Your task to perform on an android device: change the clock display to digital Image 0: 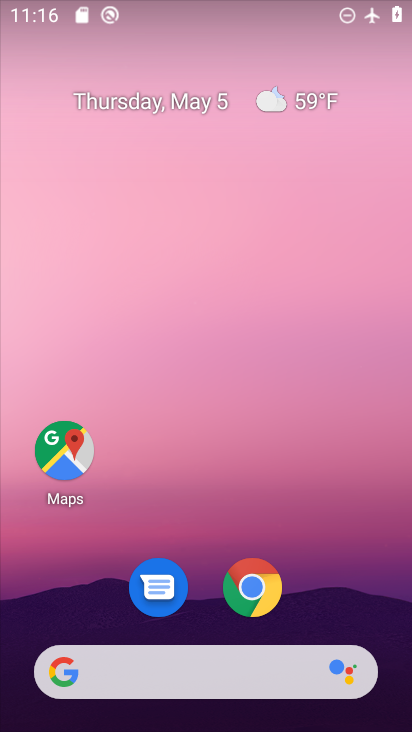
Step 0: drag from (381, 595) to (316, 12)
Your task to perform on an android device: change the clock display to digital Image 1: 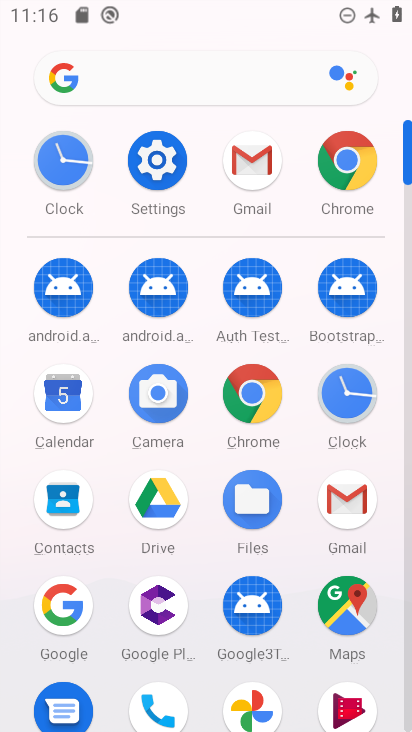
Step 1: drag from (4, 587) to (0, 241)
Your task to perform on an android device: change the clock display to digital Image 2: 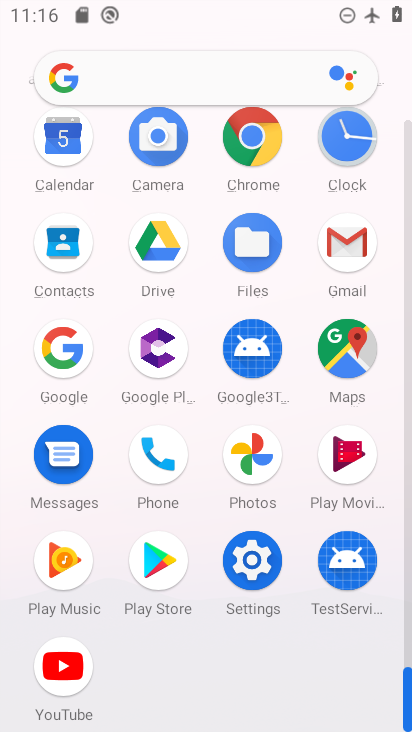
Step 2: click (345, 137)
Your task to perform on an android device: change the clock display to digital Image 3: 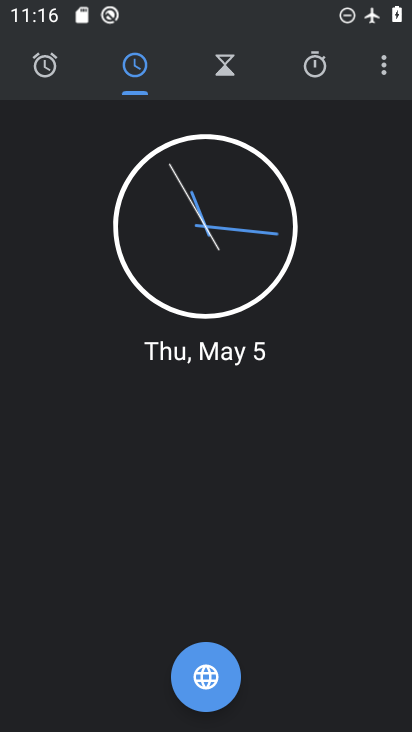
Step 3: drag from (388, 59) to (384, 126)
Your task to perform on an android device: change the clock display to digital Image 4: 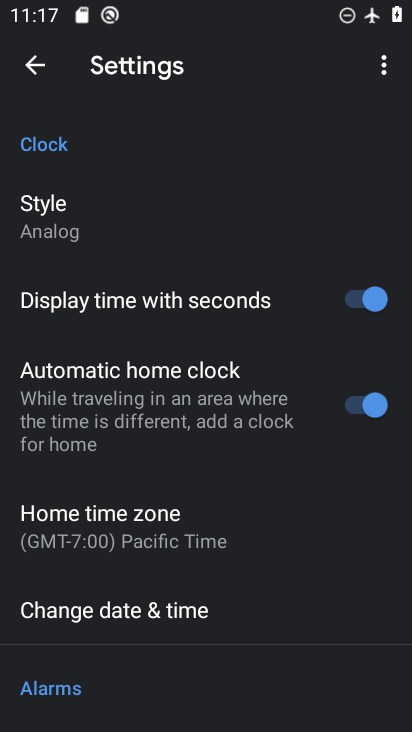
Step 4: click (146, 183)
Your task to perform on an android device: change the clock display to digital Image 5: 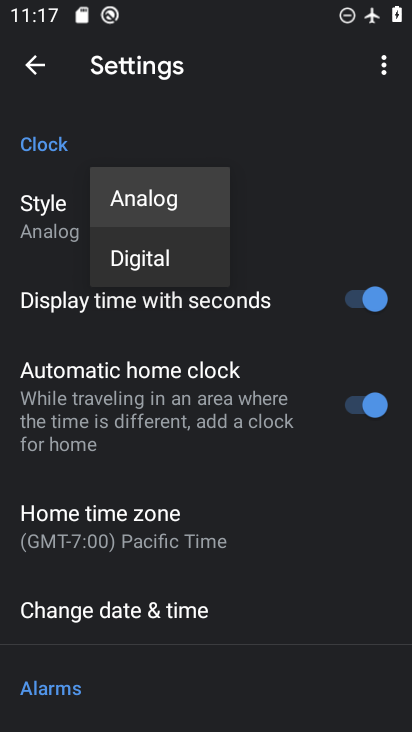
Step 5: click (156, 264)
Your task to perform on an android device: change the clock display to digital Image 6: 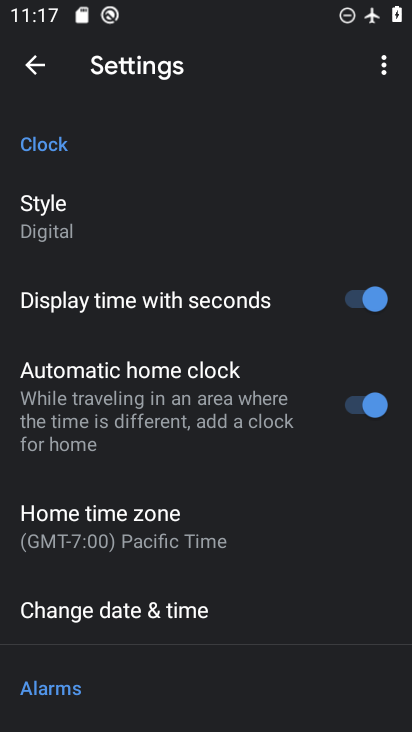
Step 6: task complete